Your task to perform on an android device: Go to settings Image 0: 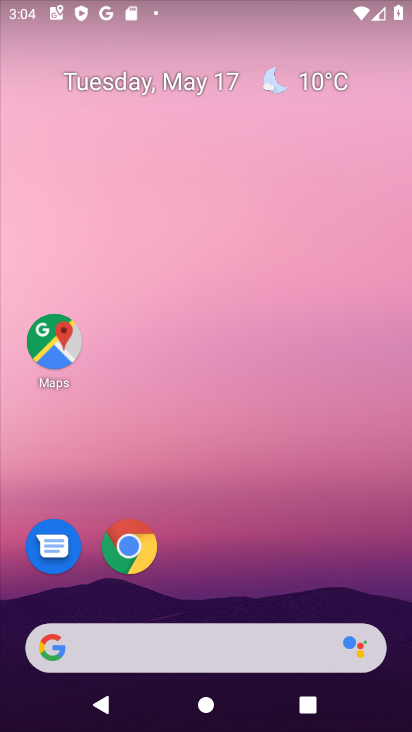
Step 0: drag from (254, 591) to (315, 28)
Your task to perform on an android device: Go to settings Image 1: 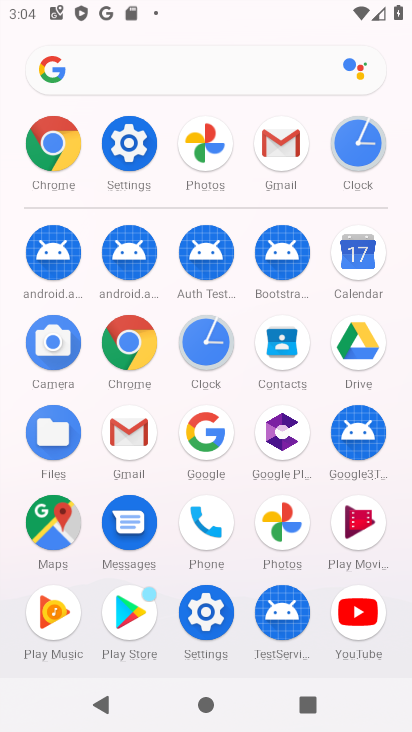
Step 1: click (201, 604)
Your task to perform on an android device: Go to settings Image 2: 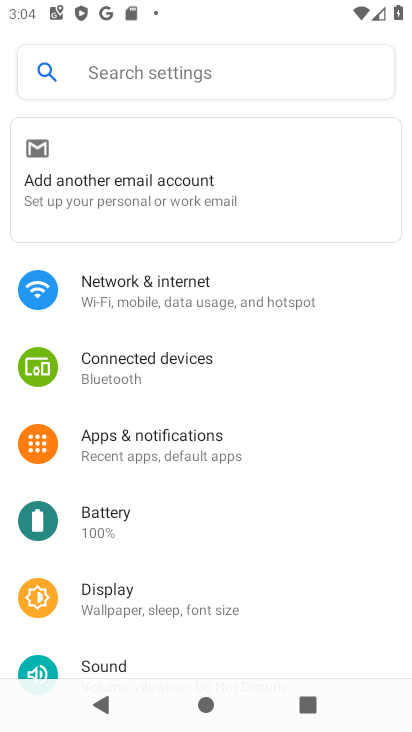
Step 2: task complete